Your task to perform on an android device: Open battery settings Image 0: 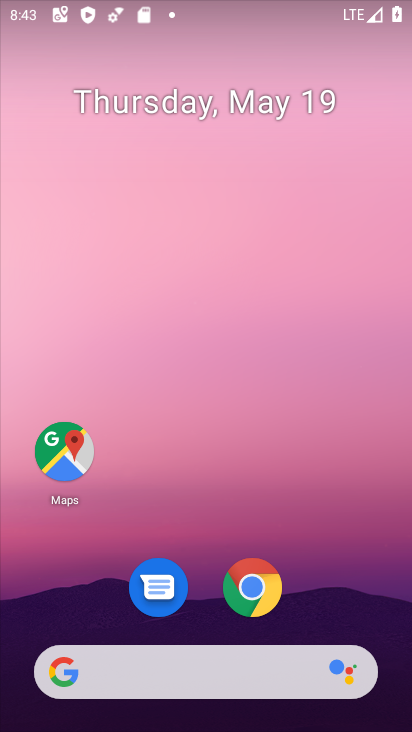
Step 0: drag from (305, 483) to (242, 6)
Your task to perform on an android device: Open battery settings Image 1: 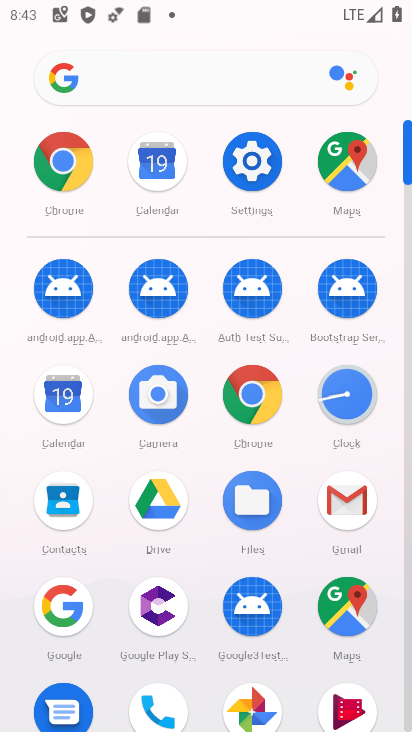
Step 1: drag from (11, 512) to (10, 240)
Your task to perform on an android device: Open battery settings Image 2: 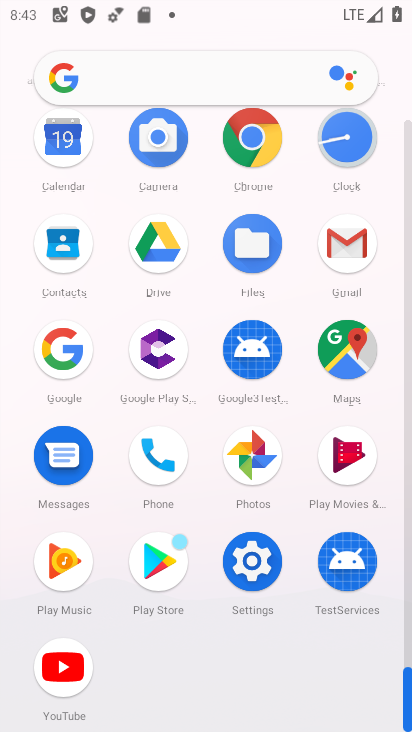
Step 2: click (253, 557)
Your task to perform on an android device: Open battery settings Image 3: 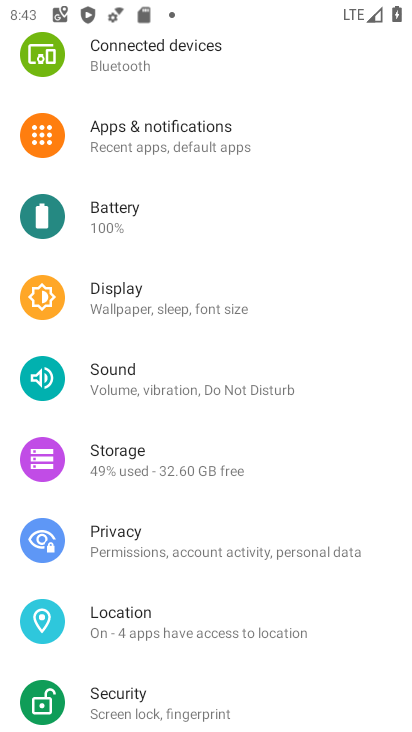
Step 3: click (146, 215)
Your task to perform on an android device: Open battery settings Image 4: 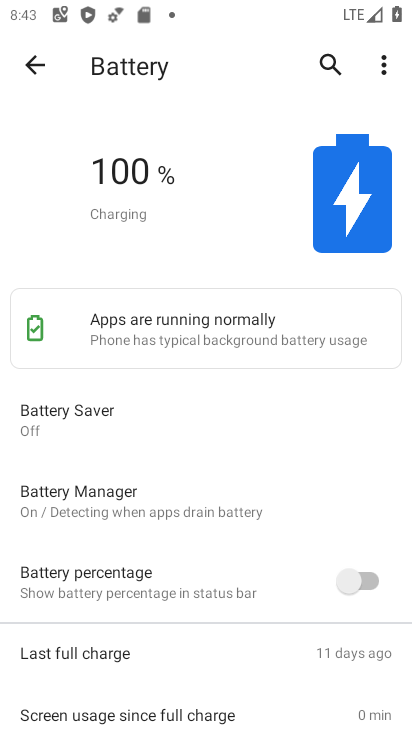
Step 4: task complete